Your task to perform on an android device: Search for seafood restaurants on Google Maps Image 0: 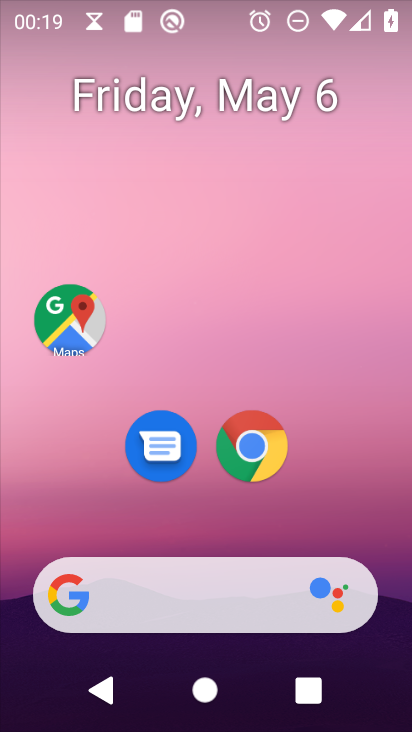
Step 0: drag from (229, 653) to (311, 316)
Your task to perform on an android device: Search for seafood restaurants on Google Maps Image 1: 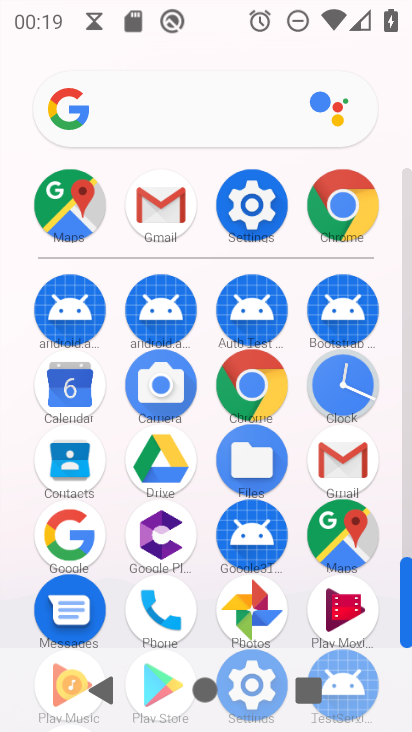
Step 1: click (86, 214)
Your task to perform on an android device: Search for seafood restaurants on Google Maps Image 2: 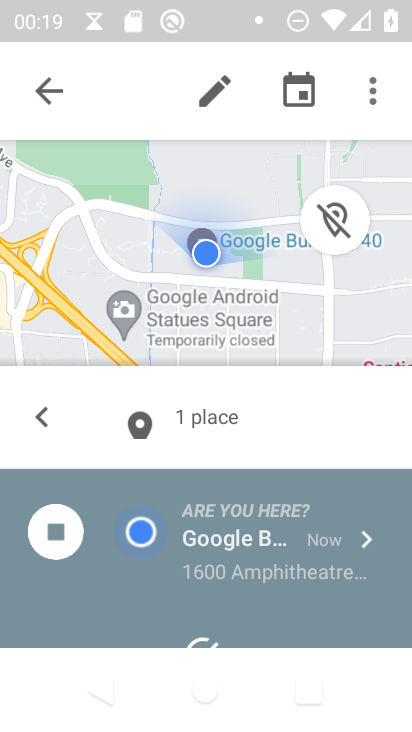
Step 2: click (37, 101)
Your task to perform on an android device: Search for seafood restaurants on Google Maps Image 3: 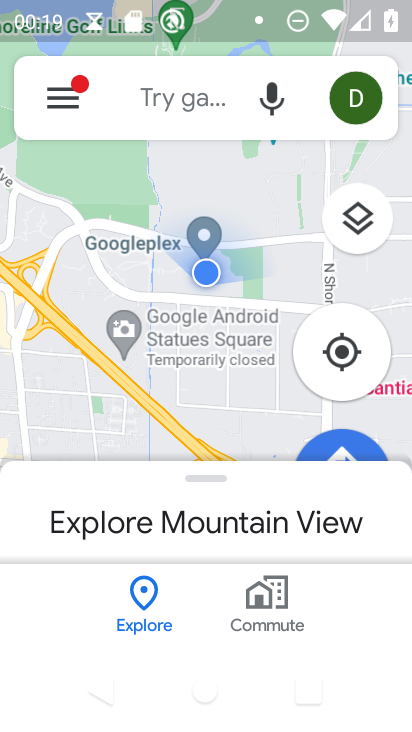
Step 3: click (176, 102)
Your task to perform on an android device: Search for seafood restaurants on Google Maps Image 4: 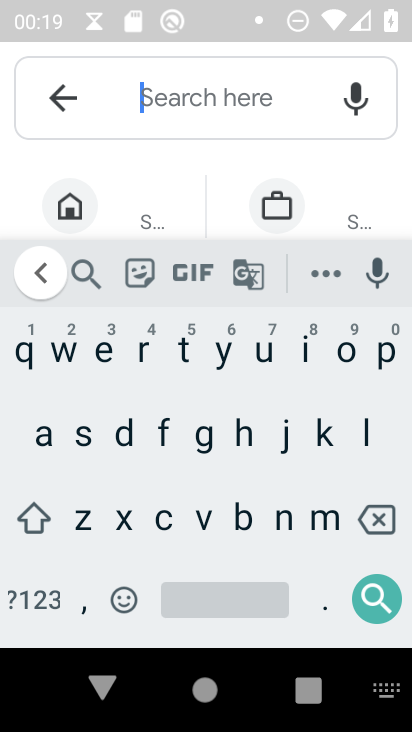
Step 4: click (83, 443)
Your task to perform on an android device: Search for seafood restaurants on Google Maps Image 5: 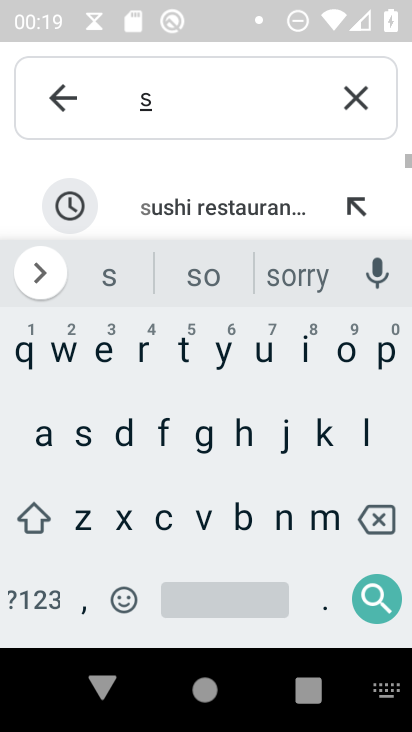
Step 5: click (98, 349)
Your task to perform on an android device: Search for seafood restaurants on Google Maps Image 6: 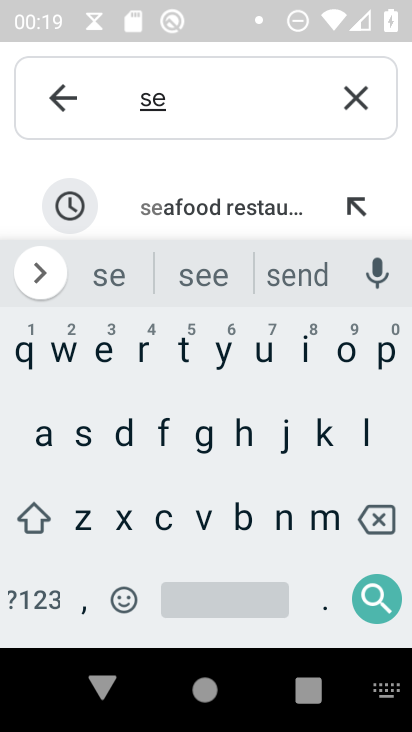
Step 6: click (196, 217)
Your task to perform on an android device: Search for seafood restaurants on Google Maps Image 7: 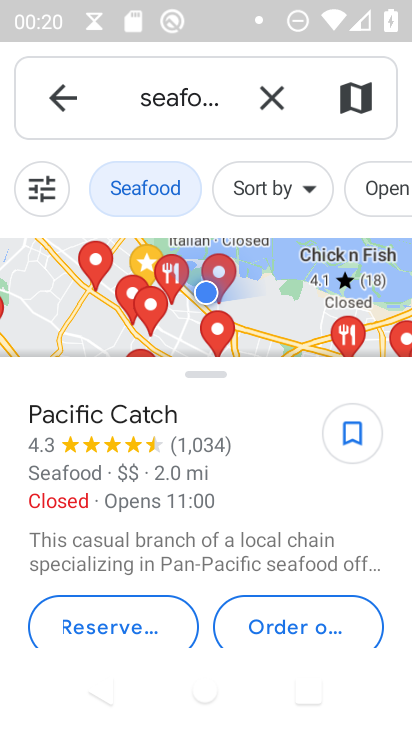
Step 7: click (254, 279)
Your task to perform on an android device: Search for seafood restaurants on Google Maps Image 8: 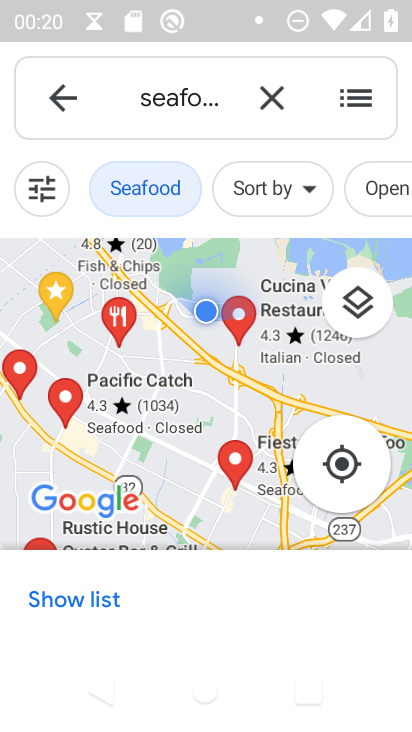
Step 8: task complete